Your task to perform on an android device: View the shopping cart on bestbuy. Search for "alienware area 51" on bestbuy, select the first entry, and add it to the cart. Image 0: 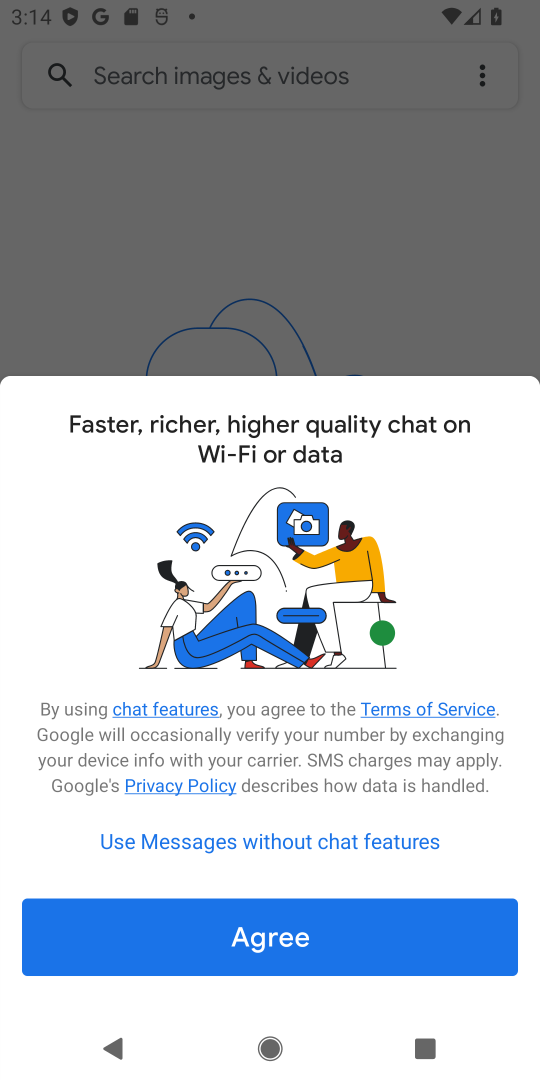
Step 0: press home button
Your task to perform on an android device: View the shopping cart on bestbuy. Search for "alienware area 51" on bestbuy, select the first entry, and add it to the cart. Image 1: 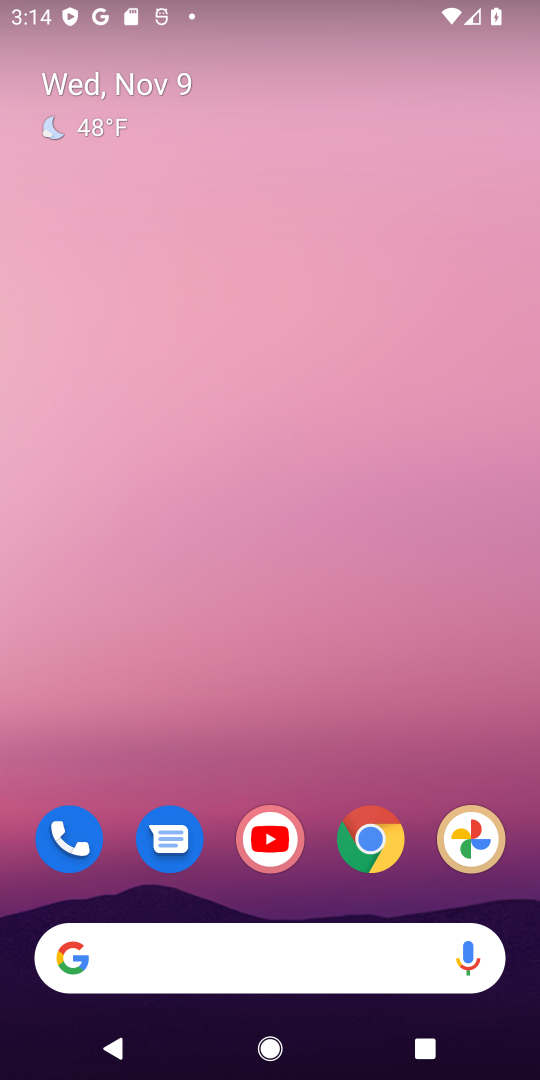
Step 1: drag from (311, 909) to (409, 72)
Your task to perform on an android device: View the shopping cart on bestbuy. Search for "alienware area 51" on bestbuy, select the first entry, and add it to the cart. Image 2: 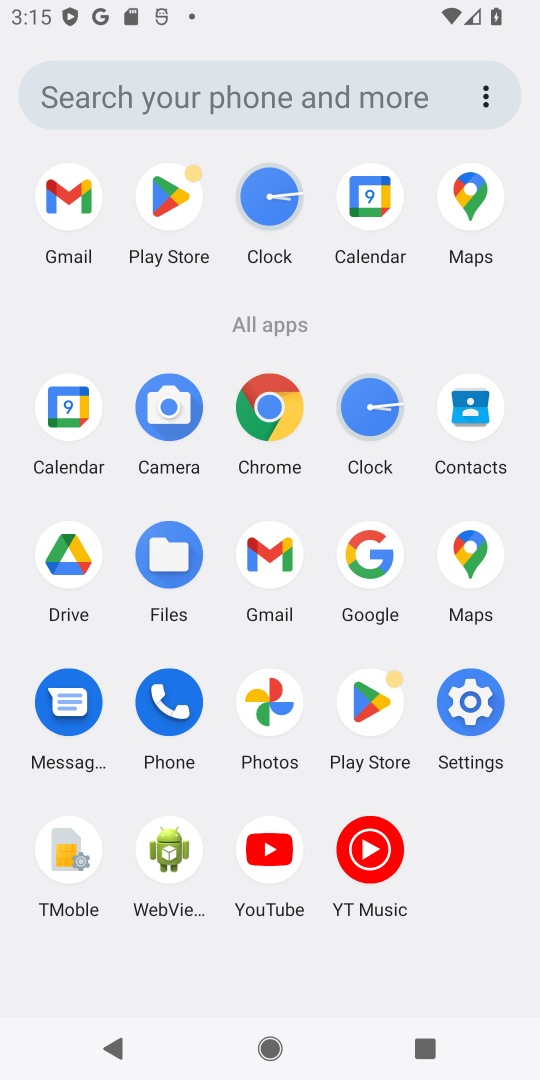
Step 2: click (269, 403)
Your task to perform on an android device: View the shopping cart on bestbuy. Search for "alienware area 51" on bestbuy, select the first entry, and add it to the cart. Image 3: 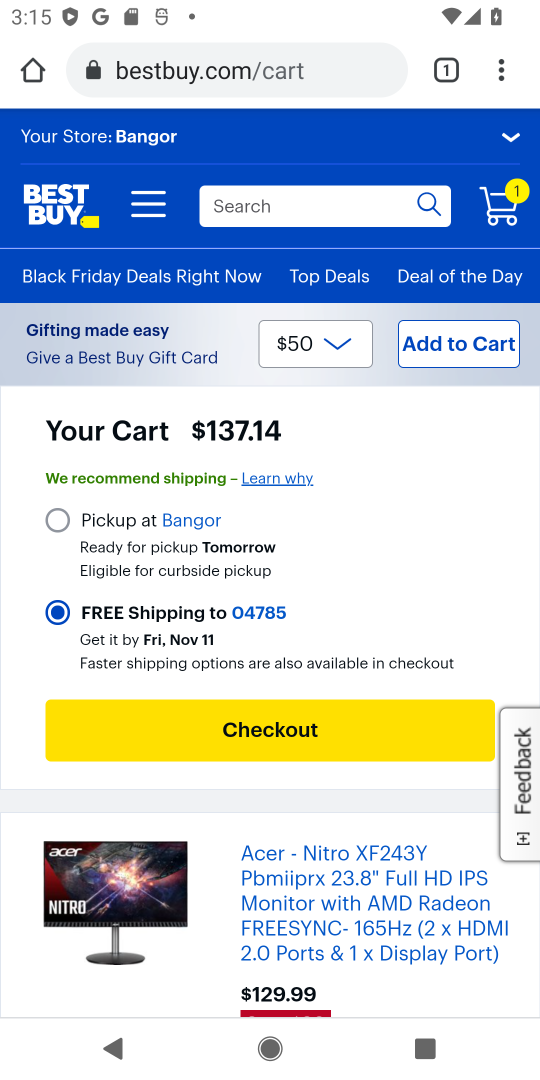
Step 3: click (277, 67)
Your task to perform on an android device: View the shopping cart on bestbuy. Search for "alienware area 51" on bestbuy, select the first entry, and add it to the cart. Image 4: 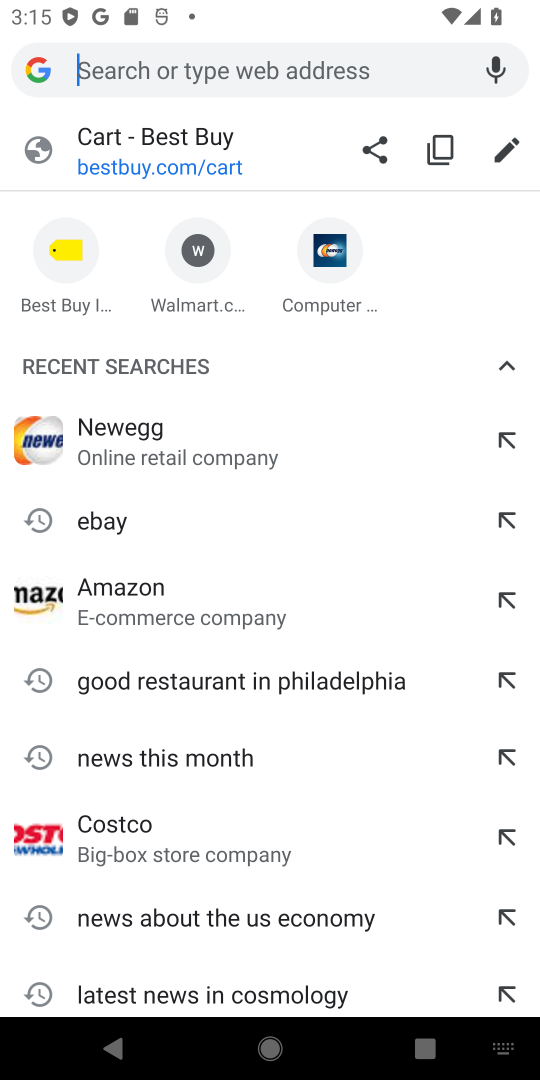
Step 4: press back button
Your task to perform on an android device: View the shopping cart on bestbuy. Search for "alienware area 51" on bestbuy, select the first entry, and add it to the cart. Image 5: 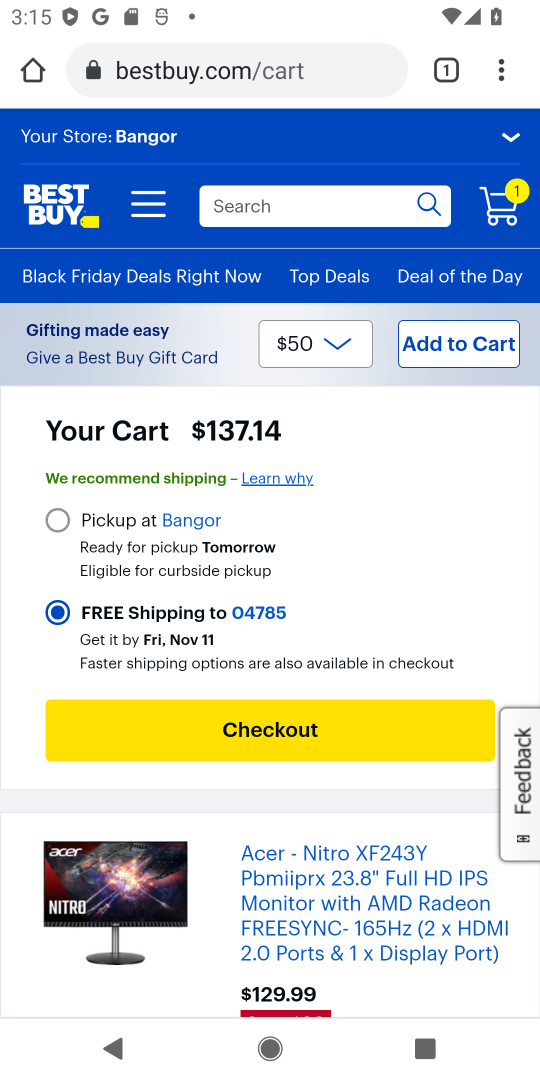
Step 5: click (494, 212)
Your task to perform on an android device: View the shopping cart on bestbuy. Search for "alienware area 51" on bestbuy, select the first entry, and add it to the cart. Image 6: 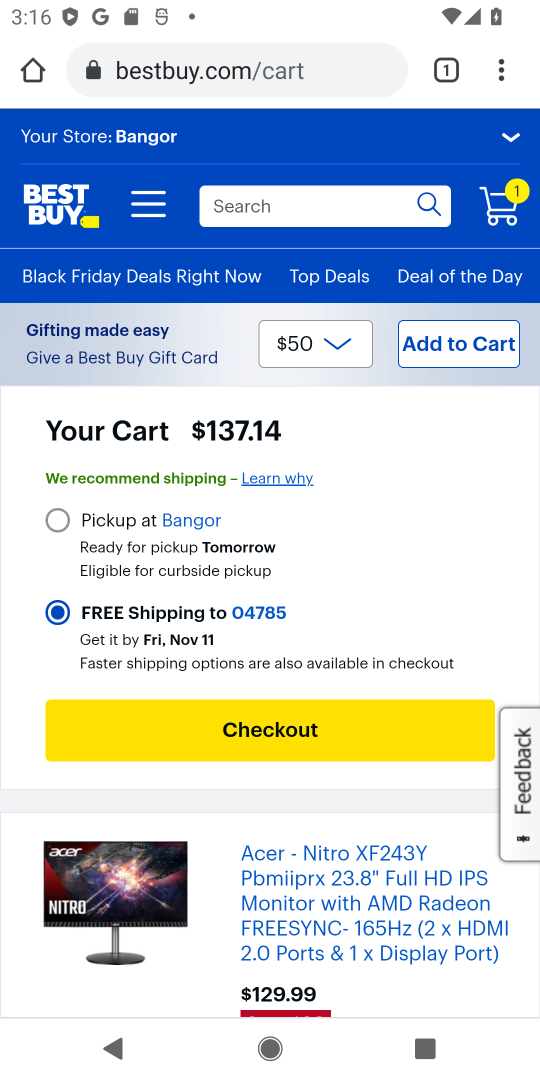
Step 6: click (517, 209)
Your task to perform on an android device: View the shopping cart on bestbuy. Search for "alienware area 51" on bestbuy, select the first entry, and add it to the cart. Image 7: 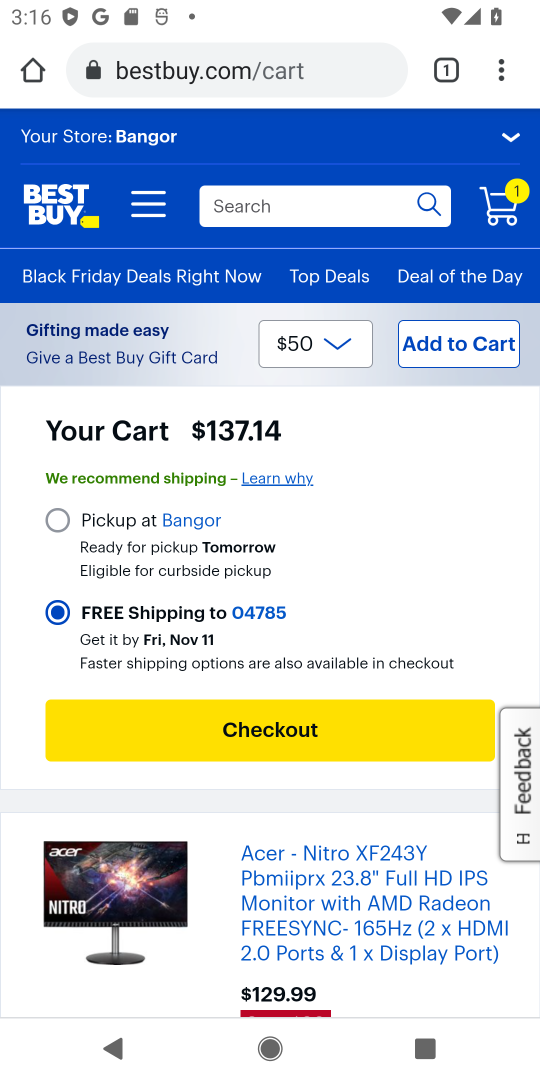
Step 7: click (312, 211)
Your task to perform on an android device: View the shopping cart on bestbuy. Search for "alienware area 51" on bestbuy, select the first entry, and add it to the cart. Image 8: 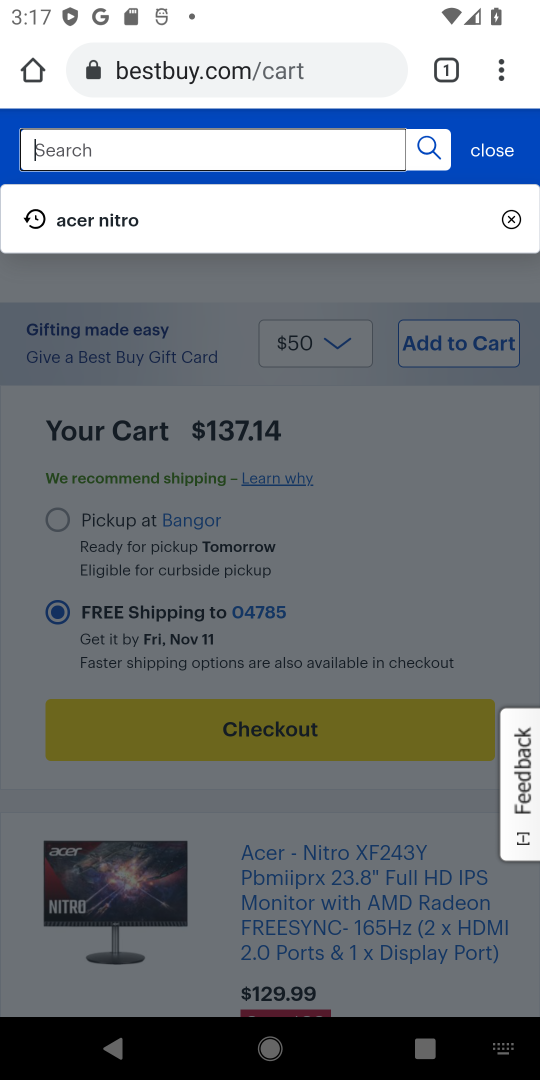
Step 8: type "alienware area 51"
Your task to perform on an android device: View the shopping cart on bestbuy. Search for "alienware area 51" on bestbuy, select the first entry, and add it to the cart. Image 9: 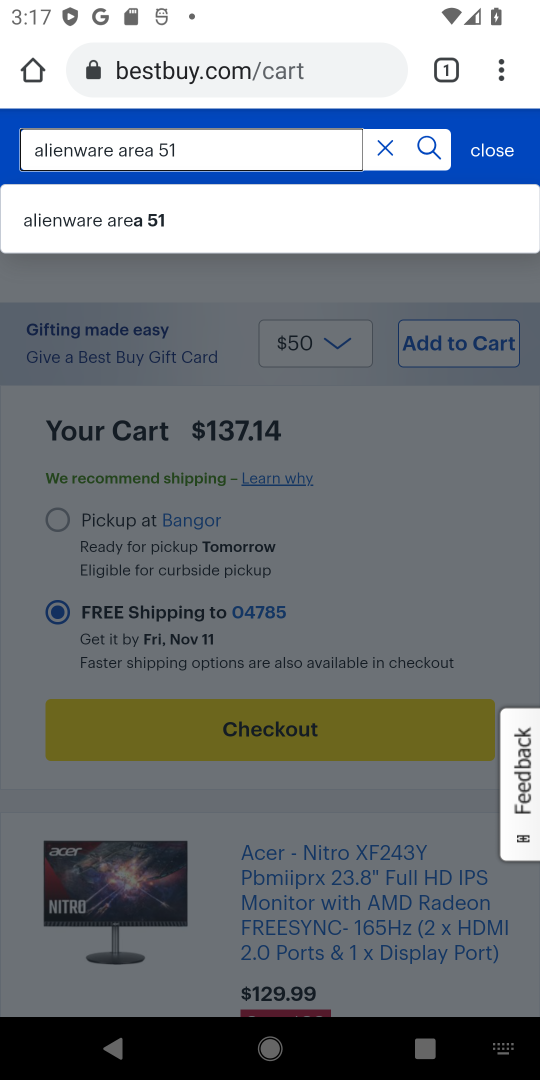
Step 9: press enter
Your task to perform on an android device: View the shopping cart on bestbuy. Search for "alienware area 51" on bestbuy, select the first entry, and add it to the cart. Image 10: 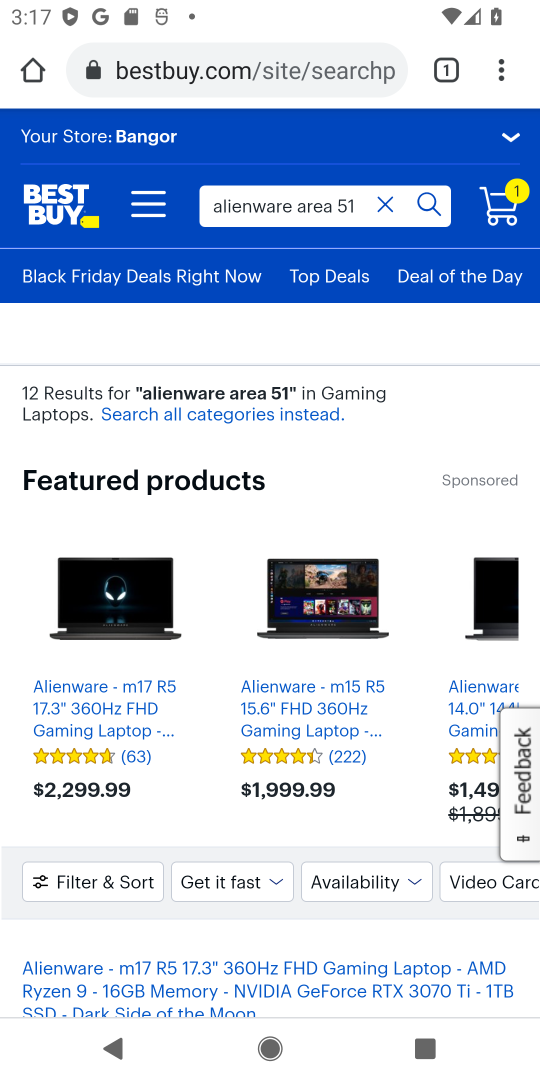
Step 10: task complete